Your task to perform on an android device: Go to privacy settings Image 0: 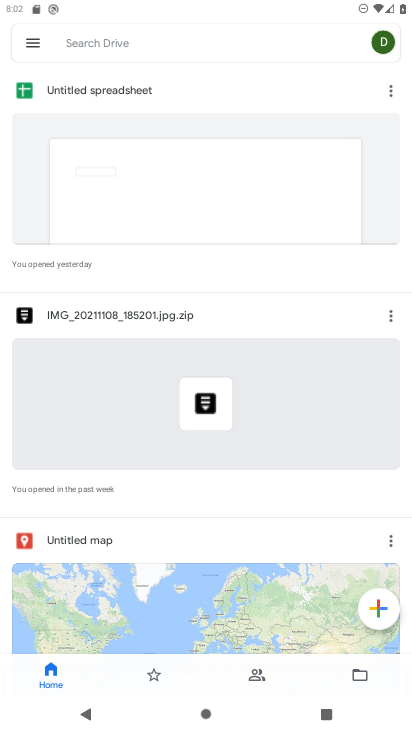
Step 0: press home button
Your task to perform on an android device: Go to privacy settings Image 1: 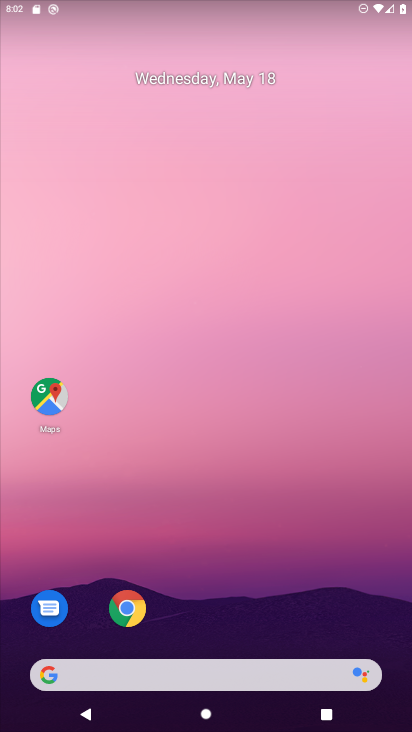
Step 1: drag from (302, 632) to (292, 36)
Your task to perform on an android device: Go to privacy settings Image 2: 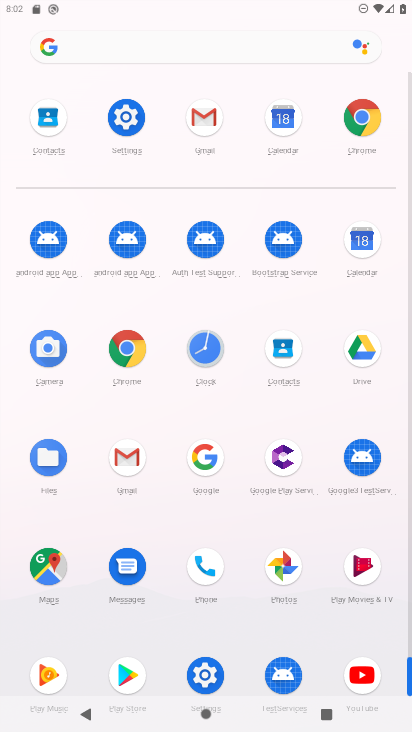
Step 2: click (134, 103)
Your task to perform on an android device: Go to privacy settings Image 3: 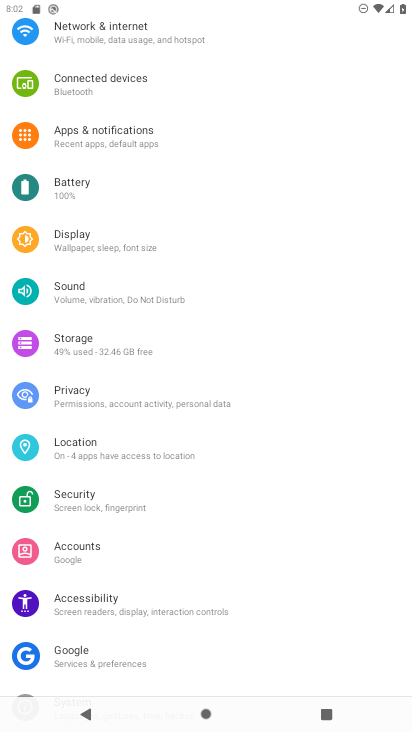
Step 3: drag from (130, 611) to (134, 563)
Your task to perform on an android device: Go to privacy settings Image 4: 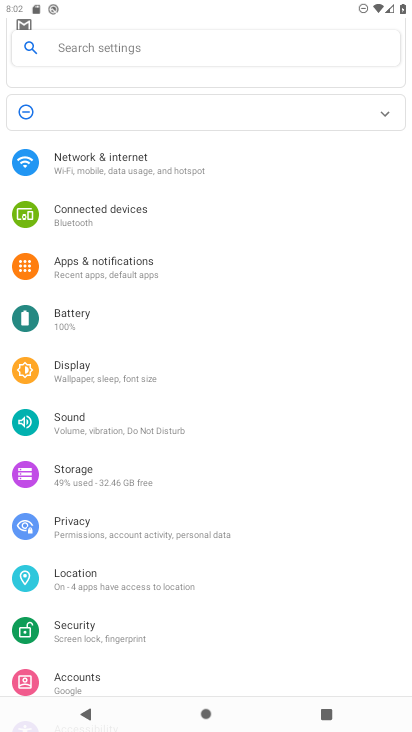
Step 4: click (75, 529)
Your task to perform on an android device: Go to privacy settings Image 5: 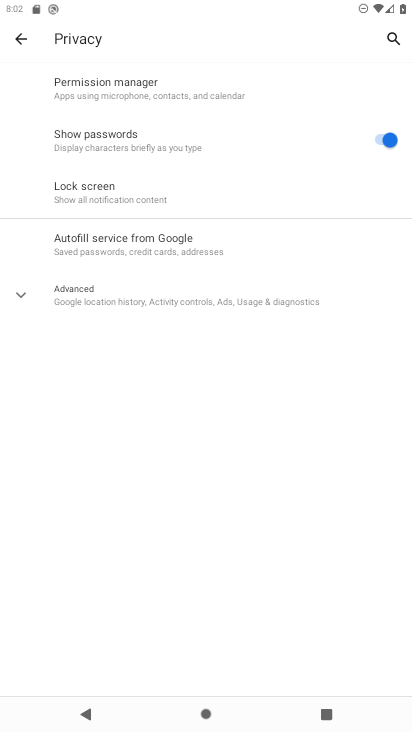
Step 5: task complete